Your task to perform on an android device: Open maps Image 0: 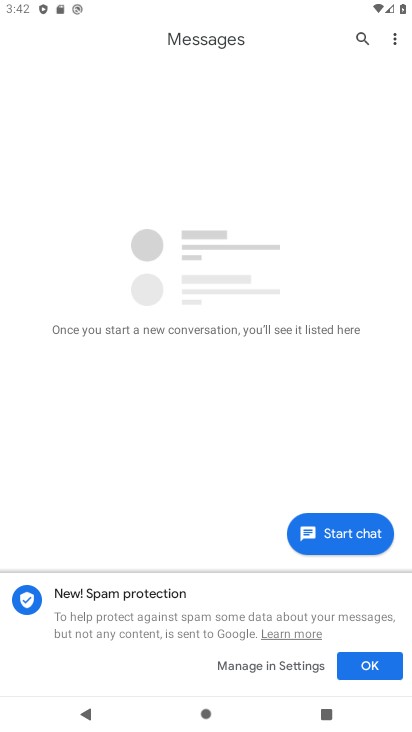
Step 0: press home button
Your task to perform on an android device: Open maps Image 1: 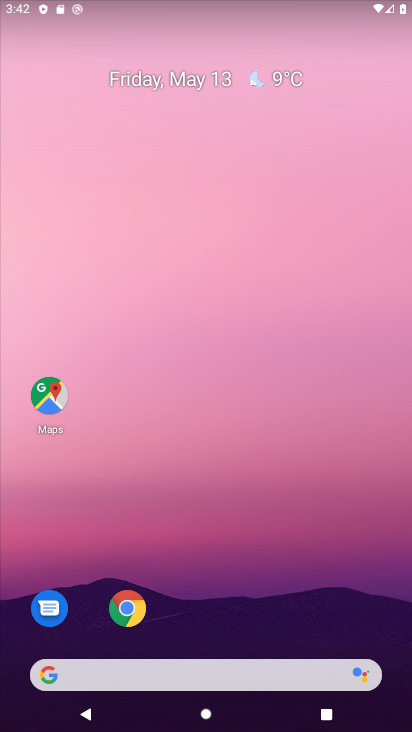
Step 1: drag from (195, 632) to (244, 333)
Your task to perform on an android device: Open maps Image 2: 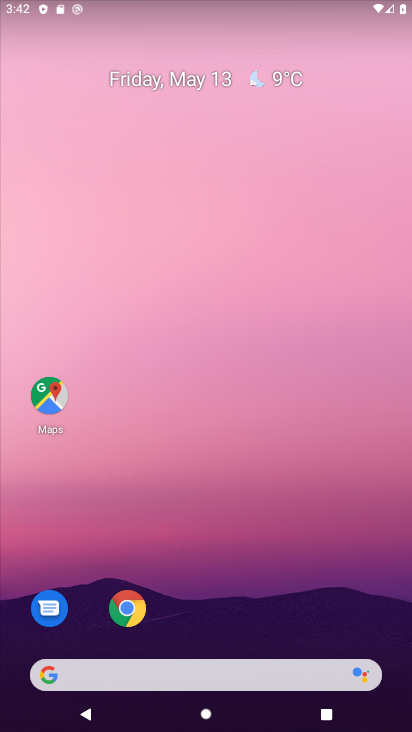
Step 2: click (41, 392)
Your task to perform on an android device: Open maps Image 3: 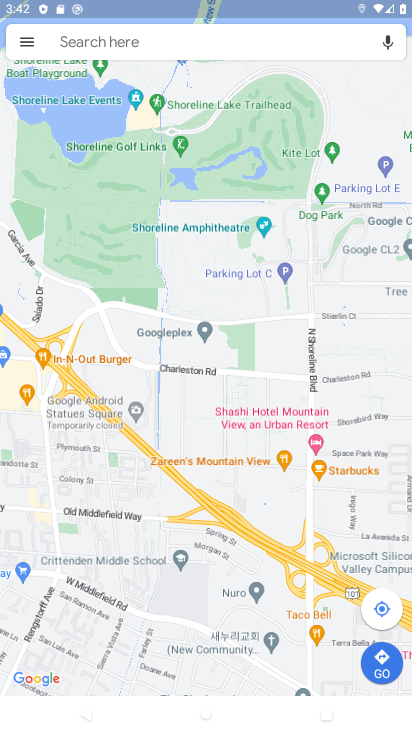
Step 3: task complete